Your task to perform on an android device: Open the Play Movies app and select the watchlist tab. Image 0: 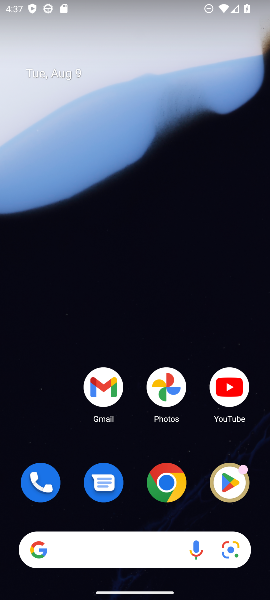
Step 0: drag from (133, 442) to (141, 102)
Your task to perform on an android device: Open the Play Movies app and select the watchlist tab. Image 1: 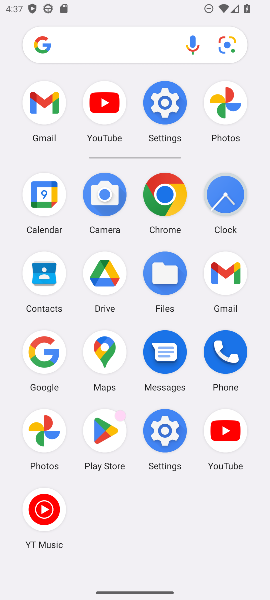
Step 1: task complete